Your task to perform on an android device: toggle show notifications on the lock screen Image 0: 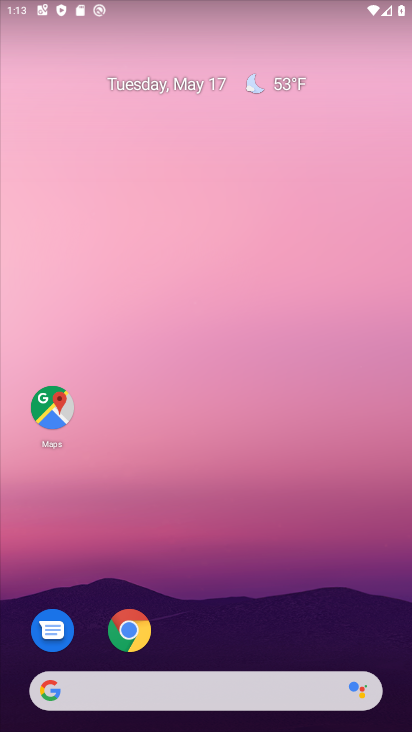
Step 0: drag from (213, 662) to (323, 120)
Your task to perform on an android device: toggle show notifications on the lock screen Image 1: 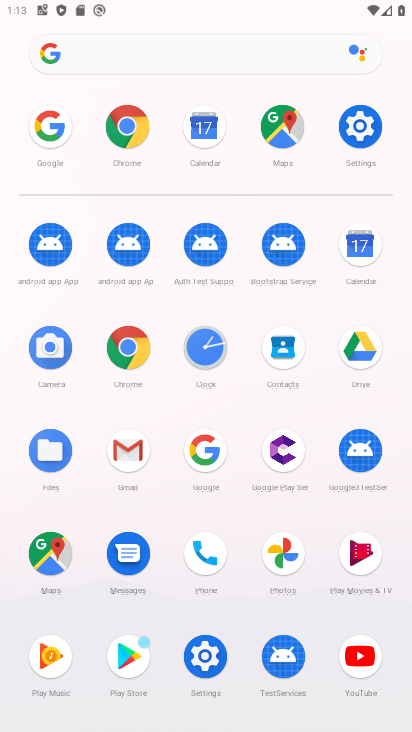
Step 1: click (366, 160)
Your task to perform on an android device: toggle show notifications on the lock screen Image 2: 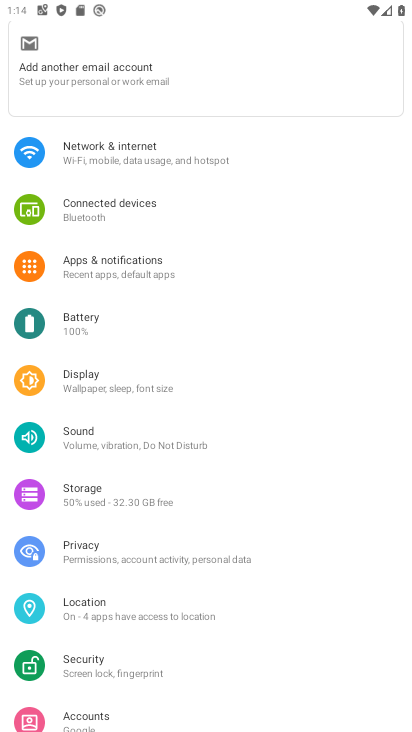
Step 2: click (180, 270)
Your task to perform on an android device: toggle show notifications on the lock screen Image 3: 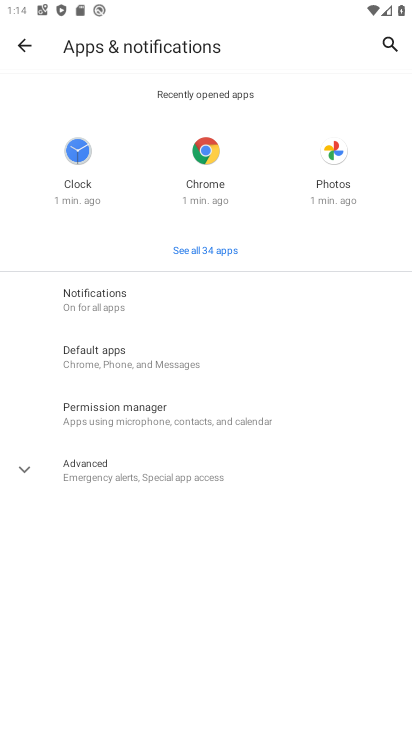
Step 3: click (178, 308)
Your task to perform on an android device: toggle show notifications on the lock screen Image 4: 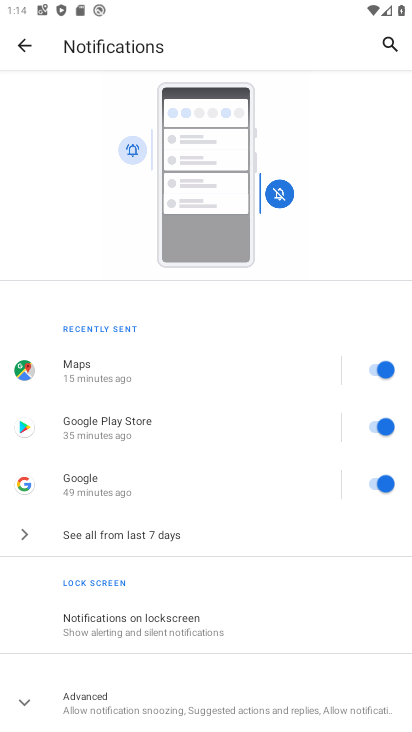
Step 4: task complete